Your task to perform on an android device: Go to Google maps Image 0: 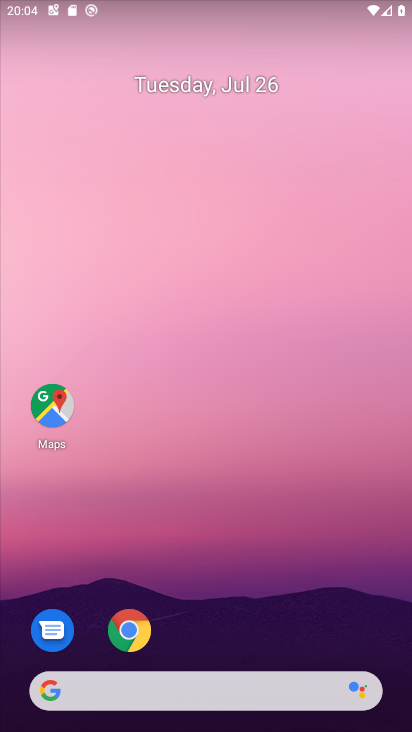
Step 0: click (45, 398)
Your task to perform on an android device: Go to Google maps Image 1: 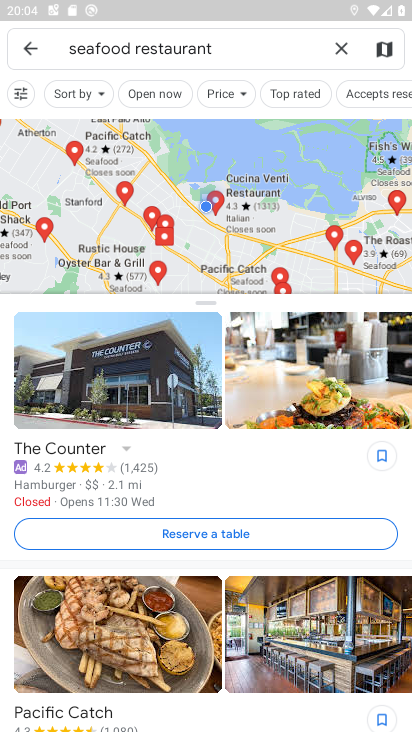
Step 1: click (32, 48)
Your task to perform on an android device: Go to Google maps Image 2: 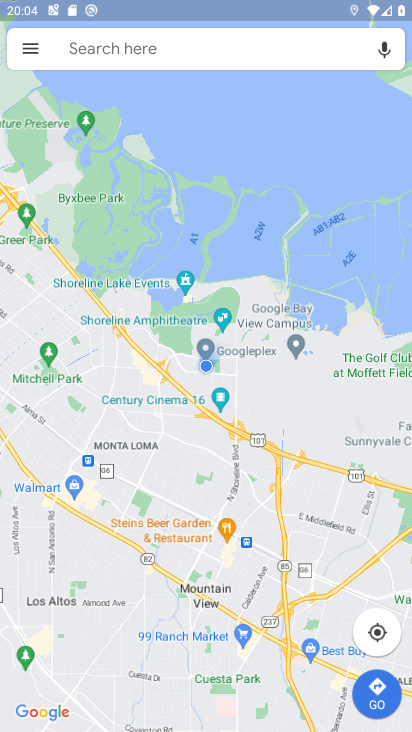
Step 2: task complete